Your task to perform on an android device: Open the stopwatch Image 0: 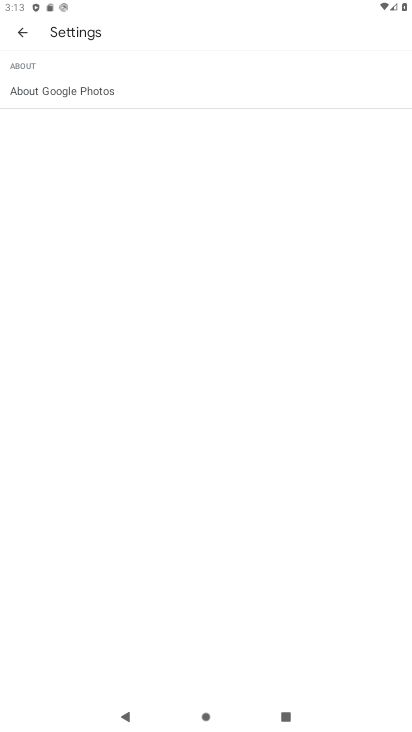
Step 0: press home button
Your task to perform on an android device: Open the stopwatch Image 1: 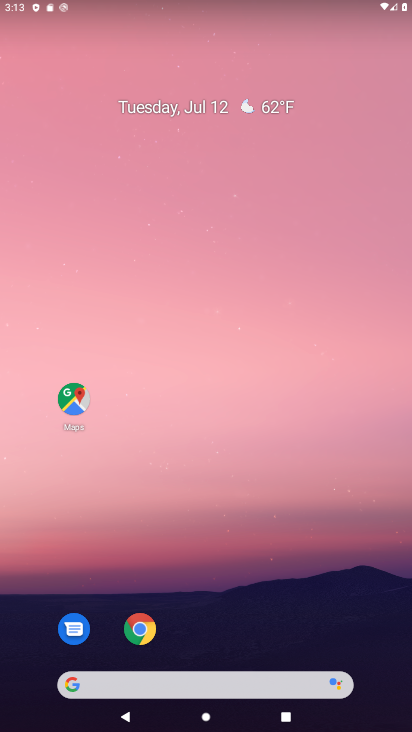
Step 1: drag from (206, 656) to (108, 0)
Your task to perform on an android device: Open the stopwatch Image 2: 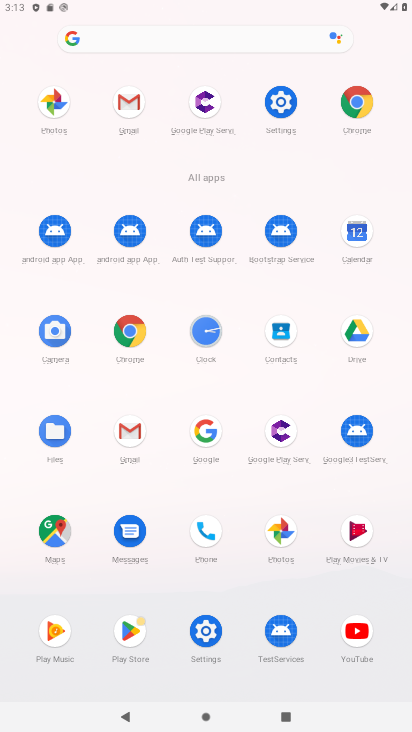
Step 2: click (205, 328)
Your task to perform on an android device: Open the stopwatch Image 3: 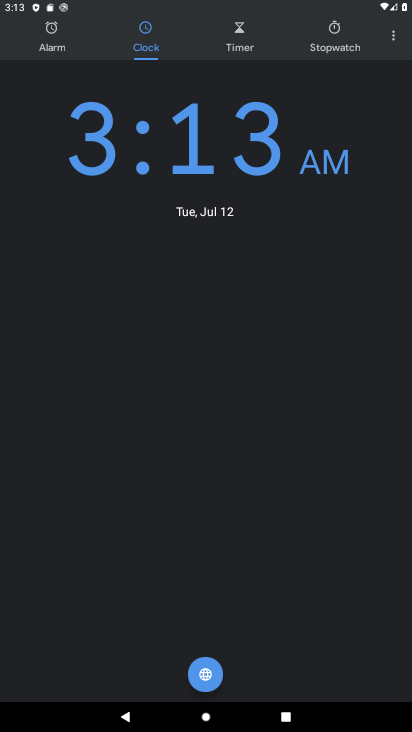
Step 3: click (330, 33)
Your task to perform on an android device: Open the stopwatch Image 4: 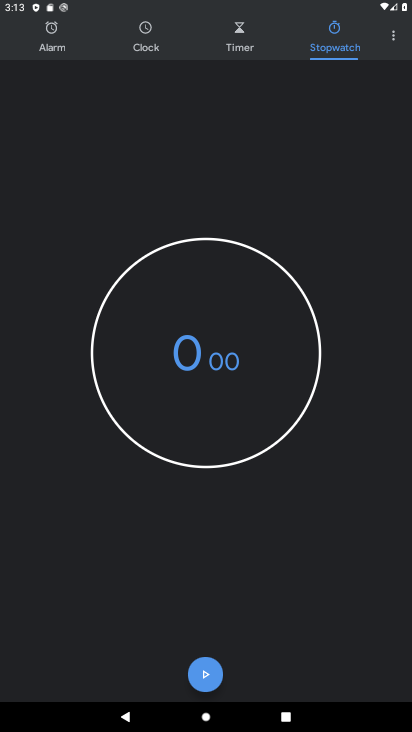
Step 4: task complete